Your task to perform on an android device: Open Google Chrome and click the shortcut for Amazon.com Image 0: 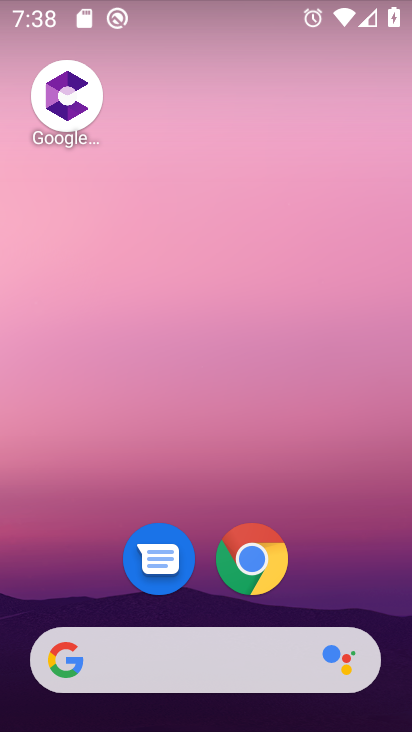
Step 0: drag from (352, 563) to (406, 170)
Your task to perform on an android device: Open Google Chrome and click the shortcut for Amazon.com Image 1: 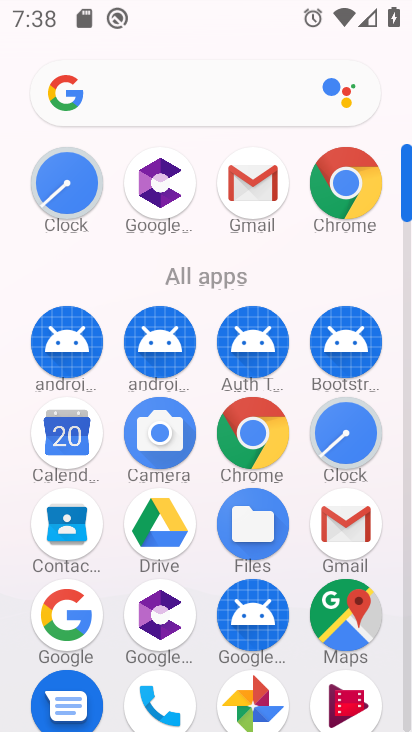
Step 1: click (245, 425)
Your task to perform on an android device: Open Google Chrome and click the shortcut for Amazon.com Image 2: 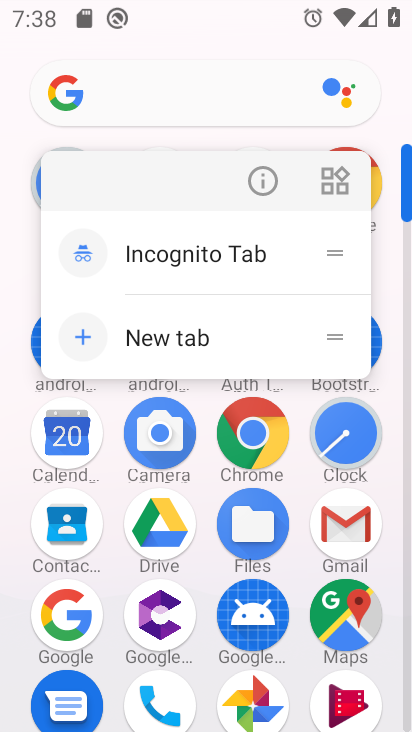
Step 2: click (236, 438)
Your task to perform on an android device: Open Google Chrome and click the shortcut for Amazon.com Image 3: 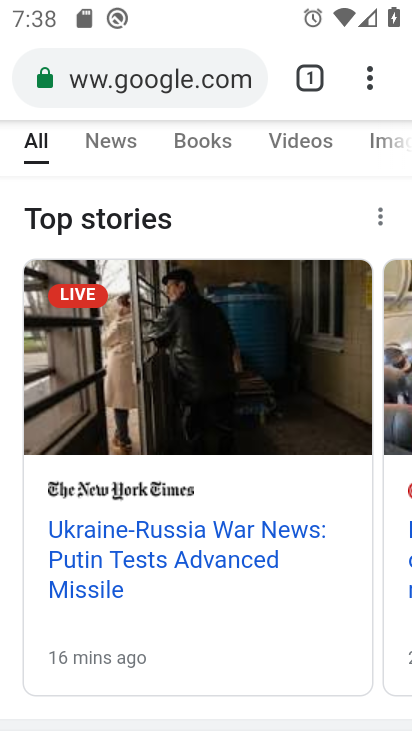
Step 3: click (317, 90)
Your task to perform on an android device: Open Google Chrome and click the shortcut for Amazon.com Image 4: 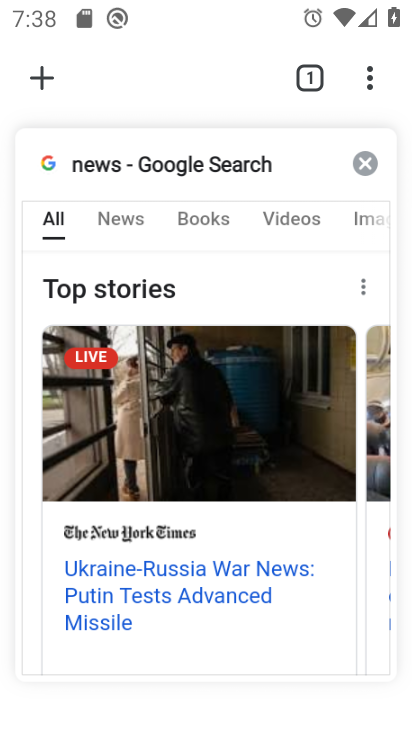
Step 4: click (49, 80)
Your task to perform on an android device: Open Google Chrome and click the shortcut for Amazon.com Image 5: 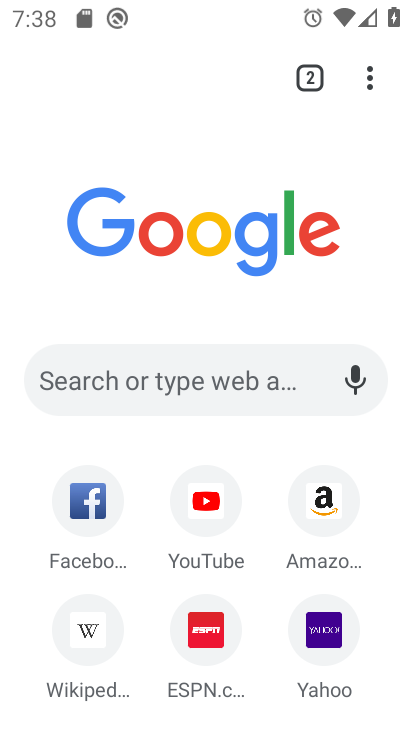
Step 5: click (319, 502)
Your task to perform on an android device: Open Google Chrome and click the shortcut for Amazon.com Image 6: 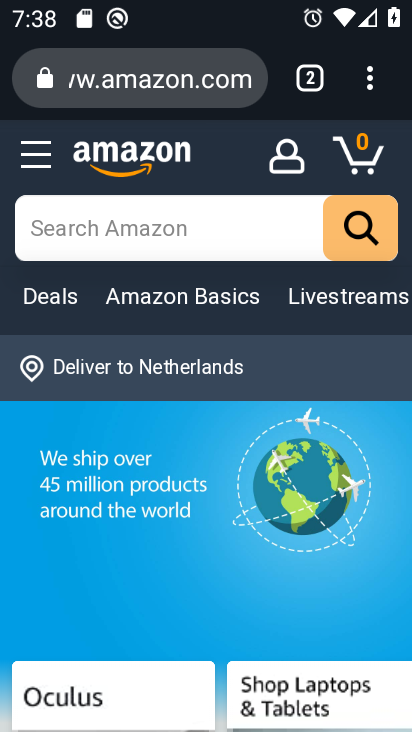
Step 6: task complete